Your task to perform on an android device: check storage Image 0: 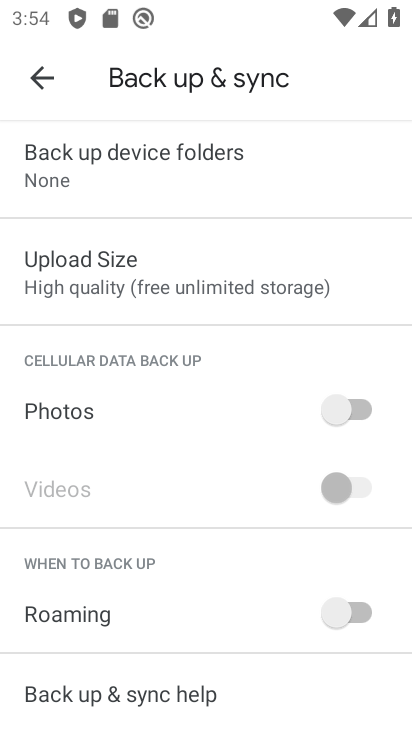
Step 0: press home button
Your task to perform on an android device: check storage Image 1: 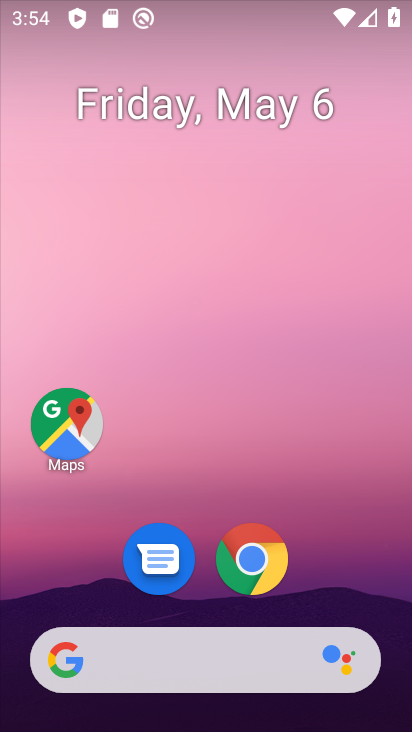
Step 1: drag from (194, 615) to (219, 170)
Your task to perform on an android device: check storage Image 2: 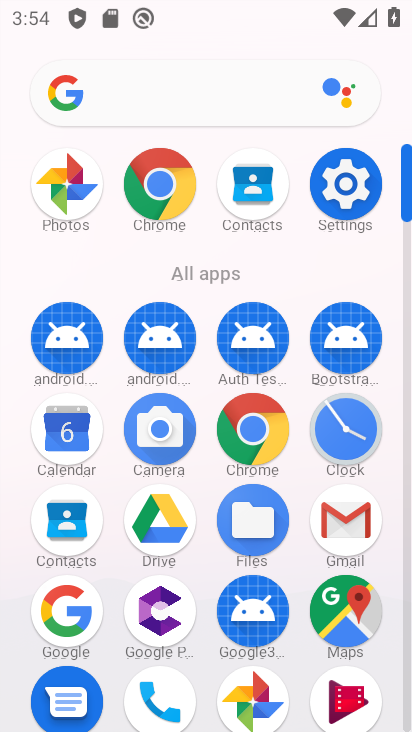
Step 2: click (345, 187)
Your task to perform on an android device: check storage Image 3: 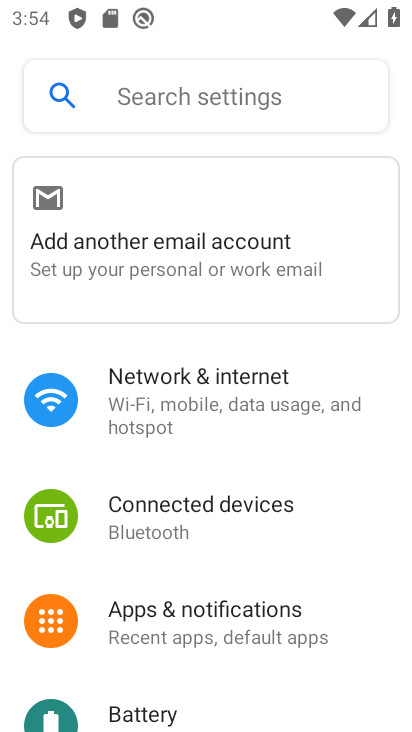
Step 3: drag from (174, 694) to (200, 278)
Your task to perform on an android device: check storage Image 4: 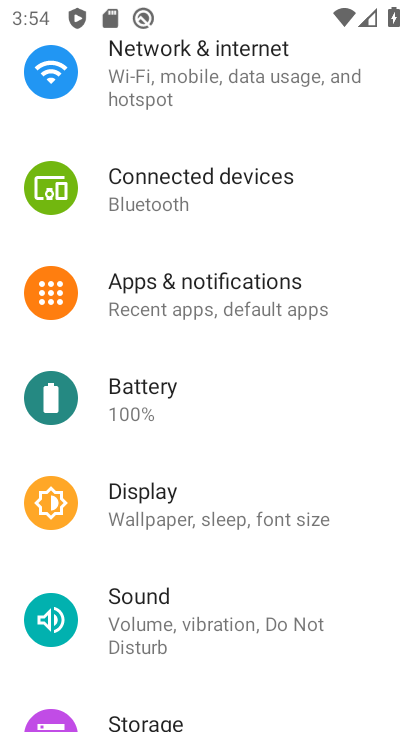
Step 4: drag from (143, 656) to (151, 317)
Your task to perform on an android device: check storage Image 5: 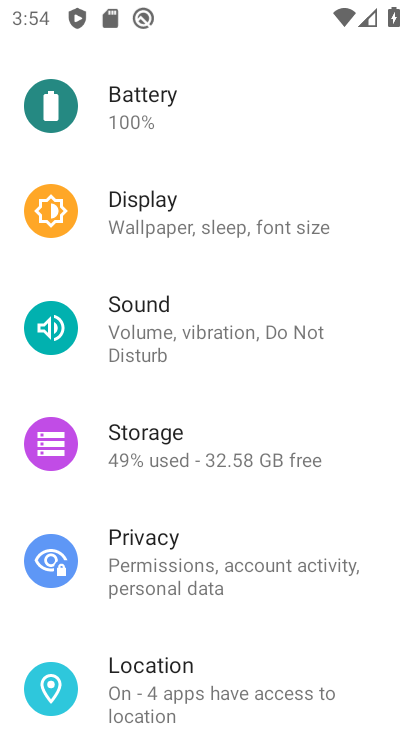
Step 5: click (149, 451)
Your task to perform on an android device: check storage Image 6: 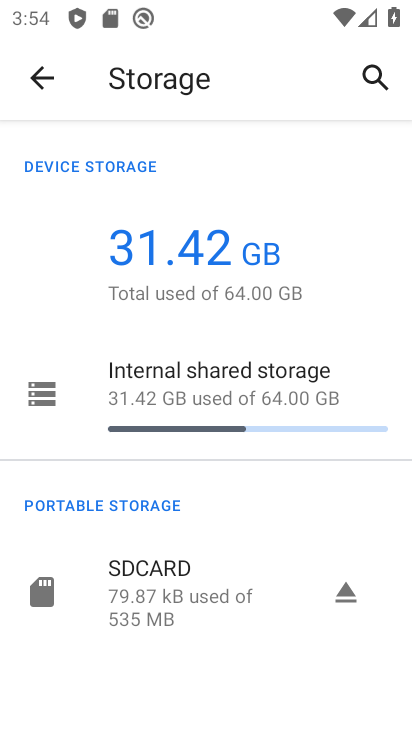
Step 6: task complete